Your task to perform on an android device: open the mobile data screen to see how much data has been used Image 0: 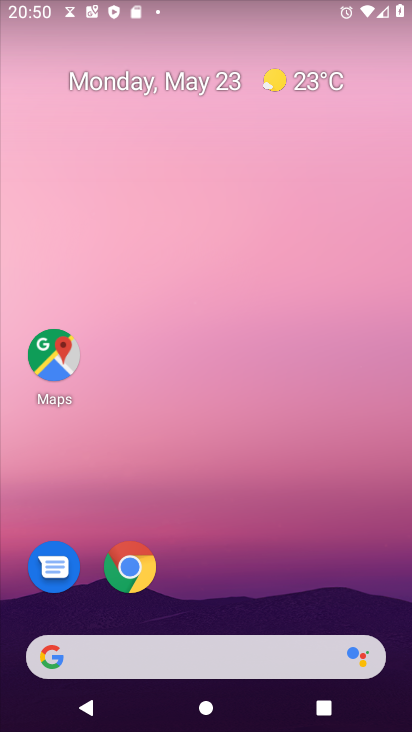
Step 0: drag from (303, 633) to (316, 208)
Your task to perform on an android device: open the mobile data screen to see how much data has been used Image 1: 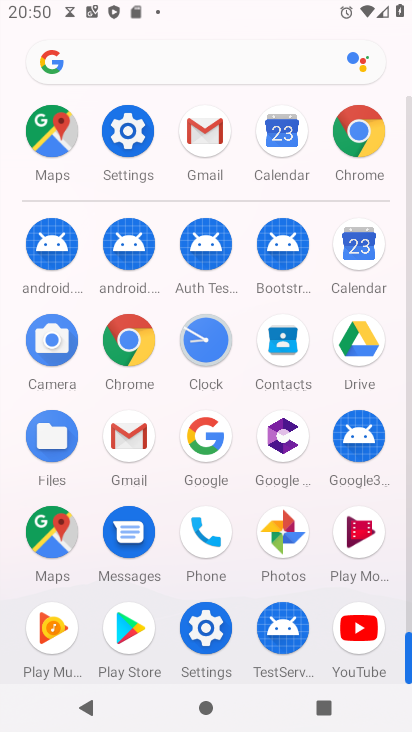
Step 1: click (131, 135)
Your task to perform on an android device: open the mobile data screen to see how much data has been used Image 2: 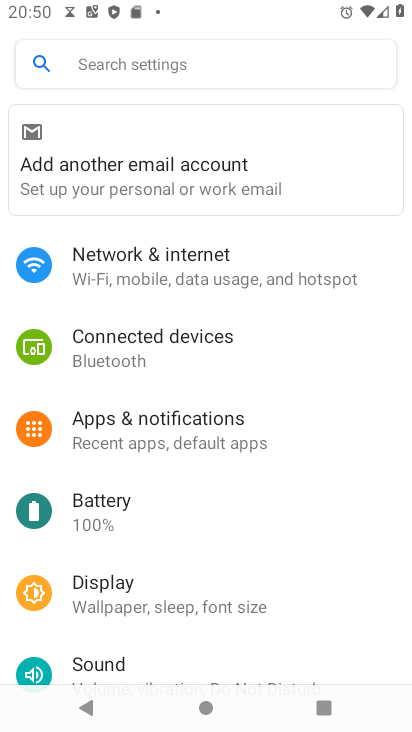
Step 2: click (186, 253)
Your task to perform on an android device: open the mobile data screen to see how much data has been used Image 3: 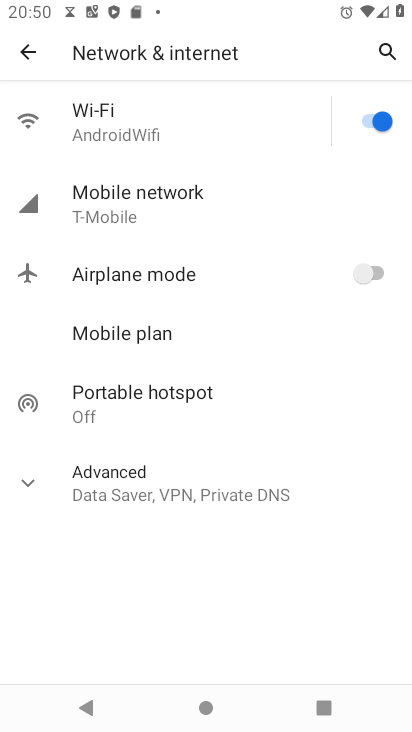
Step 3: click (132, 189)
Your task to perform on an android device: open the mobile data screen to see how much data has been used Image 4: 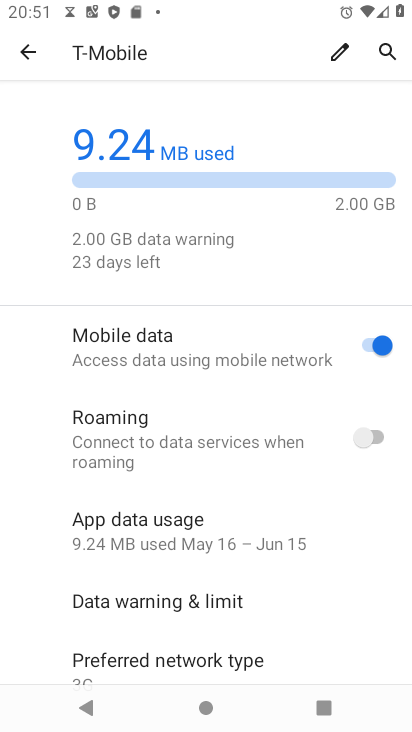
Step 4: task complete